Your task to perform on an android device: turn on javascript in the chrome app Image 0: 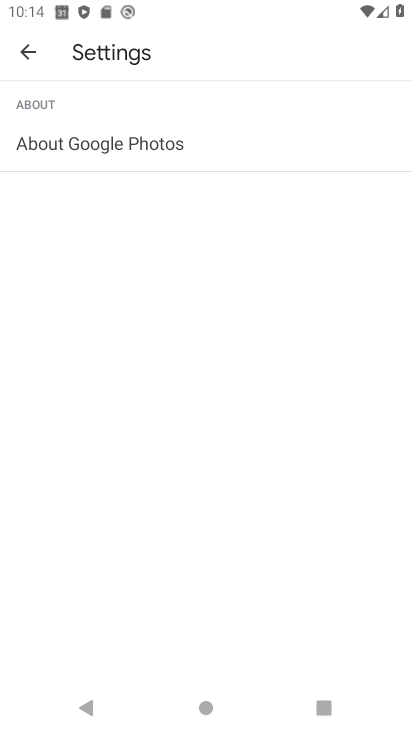
Step 0: press home button
Your task to perform on an android device: turn on javascript in the chrome app Image 1: 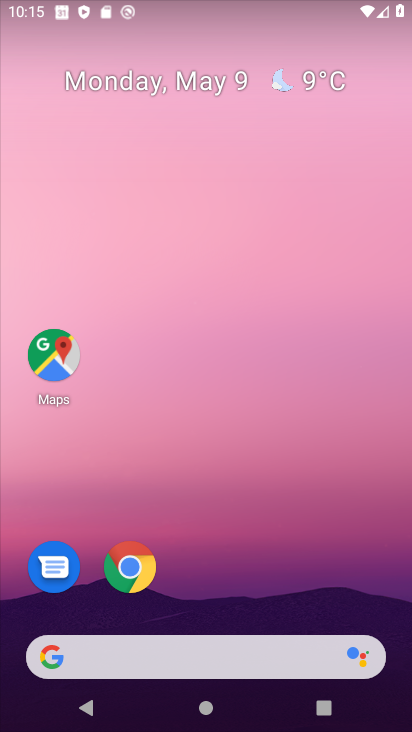
Step 1: click (133, 567)
Your task to perform on an android device: turn on javascript in the chrome app Image 2: 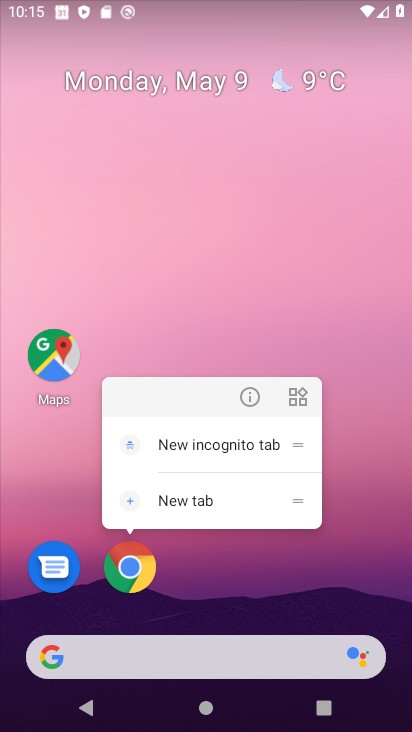
Step 2: click (130, 562)
Your task to perform on an android device: turn on javascript in the chrome app Image 3: 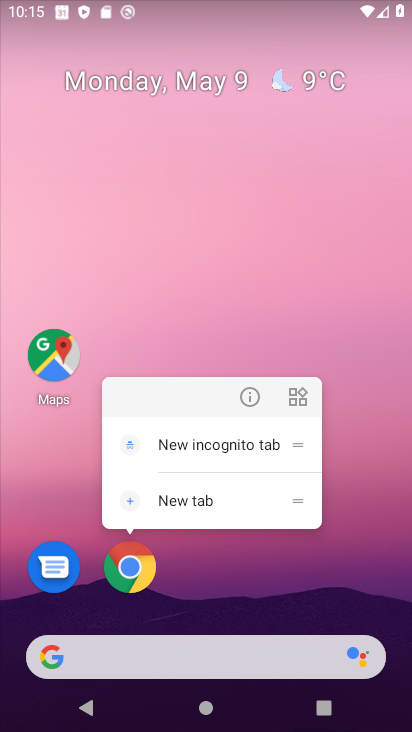
Step 3: click (130, 562)
Your task to perform on an android device: turn on javascript in the chrome app Image 4: 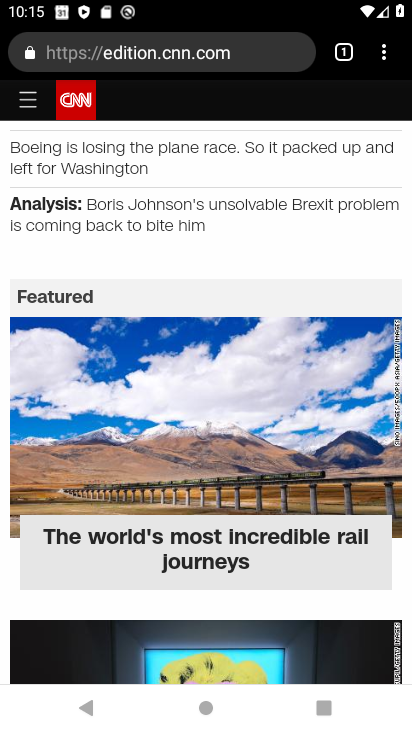
Step 4: click (384, 51)
Your task to perform on an android device: turn on javascript in the chrome app Image 5: 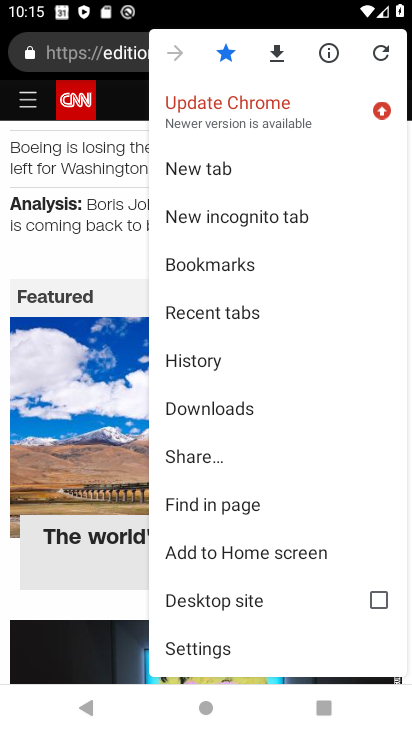
Step 5: click (248, 651)
Your task to perform on an android device: turn on javascript in the chrome app Image 6: 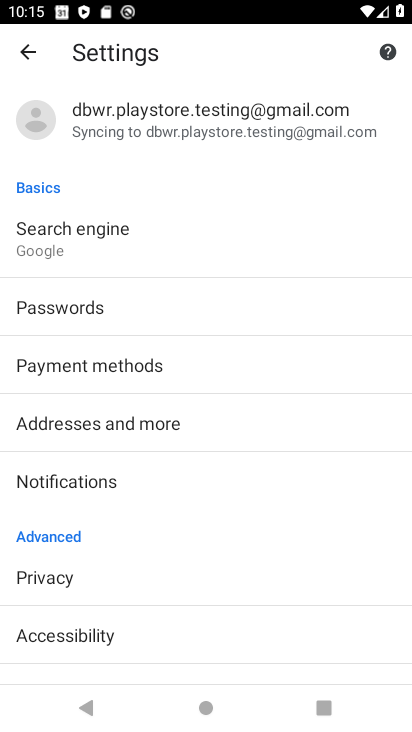
Step 6: drag from (201, 601) to (231, 117)
Your task to perform on an android device: turn on javascript in the chrome app Image 7: 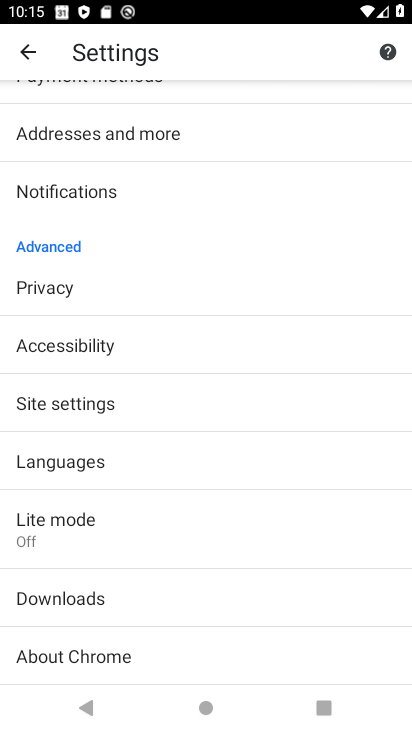
Step 7: click (139, 395)
Your task to perform on an android device: turn on javascript in the chrome app Image 8: 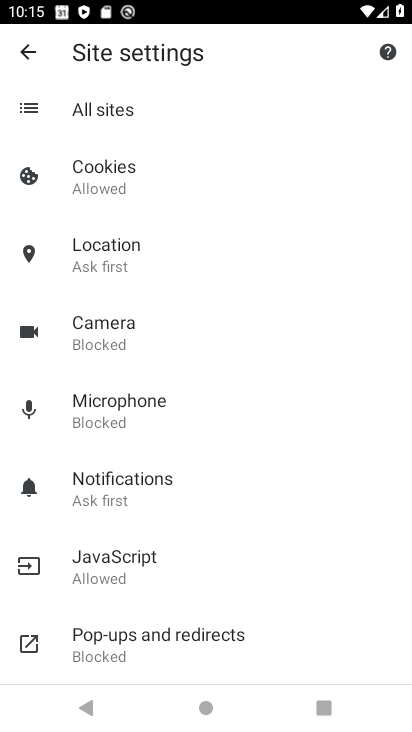
Step 8: click (164, 563)
Your task to perform on an android device: turn on javascript in the chrome app Image 9: 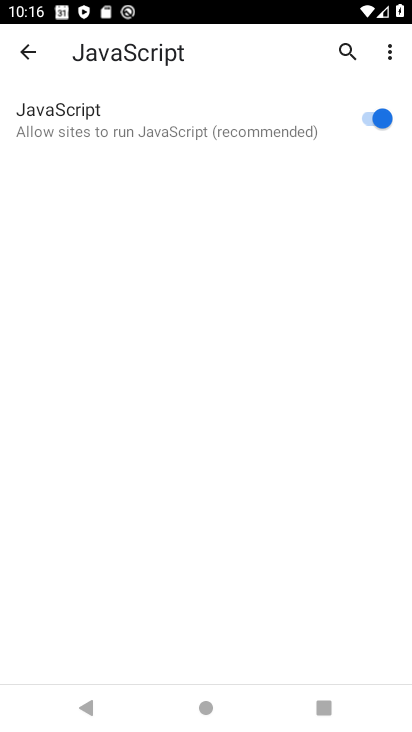
Step 9: task complete